Your task to perform on an android device: turn off javascript in the chrome app Image 0: 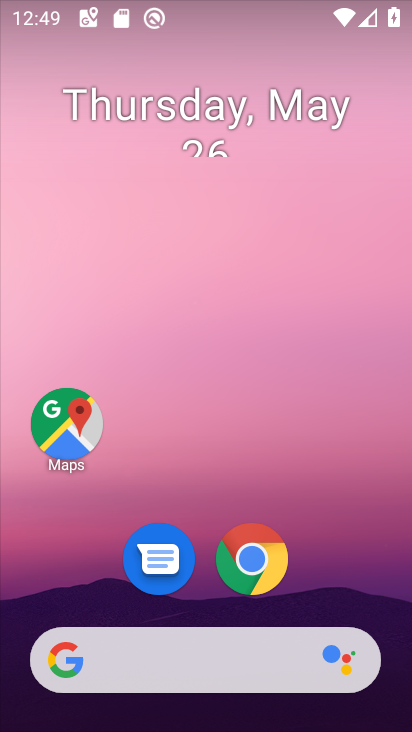
Step 0: press home button
Your task to perform on an android device: turn off javascript in the chrome app Image 1: 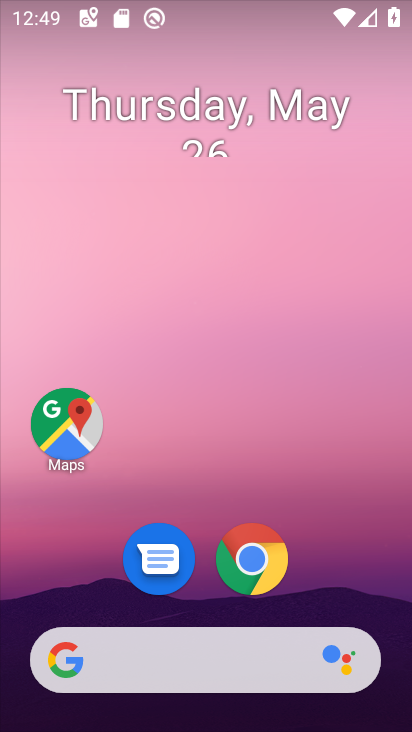
Step 1: click (242, 562)
Your task to perform on an android device: turn off javascript in the chrome app Image 2: 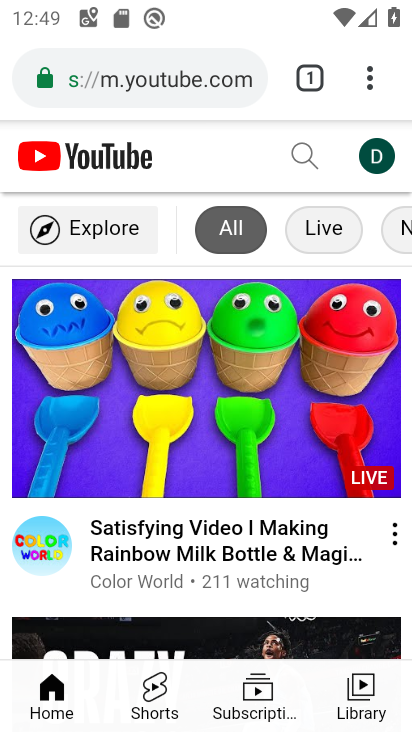
Step 2: drag from (367, 71) to (157, 615)
Your task to perform on an android device: turn off javascript in the chrome app Image 3: 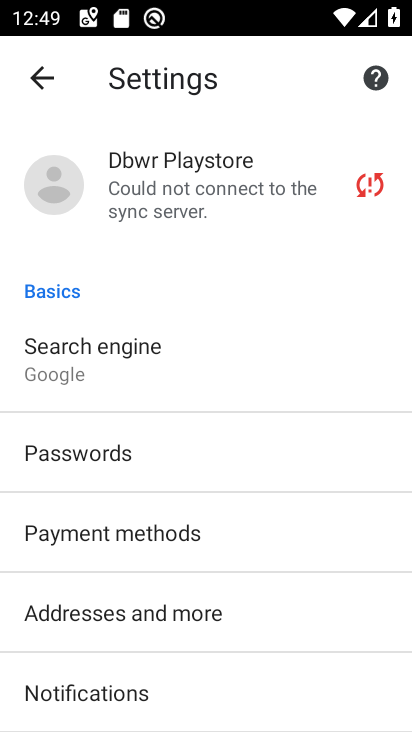
Step 3: drag from (251, 688) to (260, 53)
Your task to perform on an android device: turn off javascript in the chrome app Image 4: 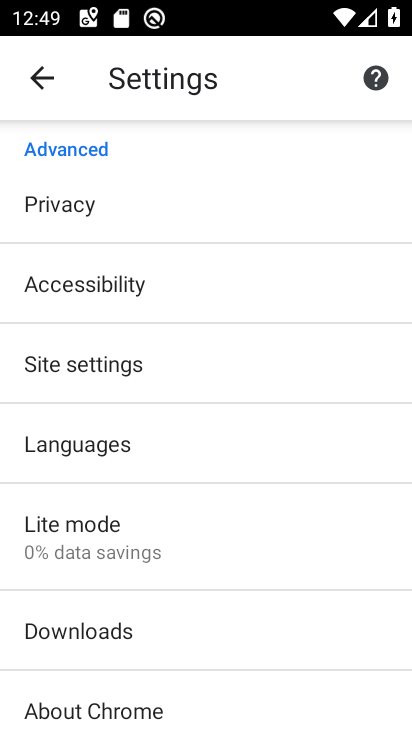
Step 4: click (65, 361)
Your task to perform on an android device: turn off javascript in the chrome app Image 5: 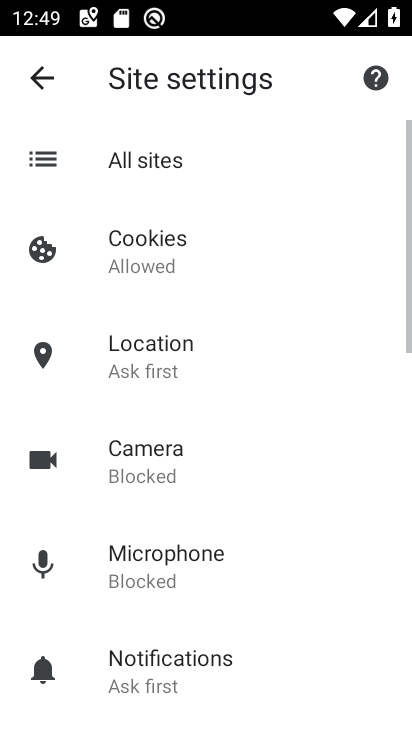
Step 5: drag from (326, 644) to (319, 120)
Your task to perform on an android device: turn off javascript in the chrome app Image 6: 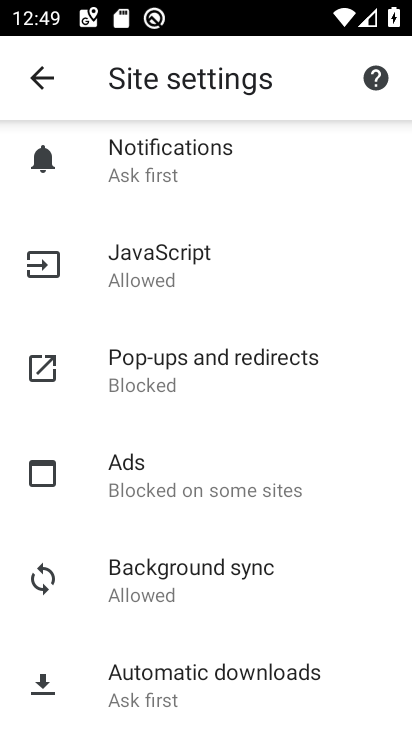
Step 6: click (133, 270)
Your task to perform on an android device: turn off javascript in the chrome app Image 7: 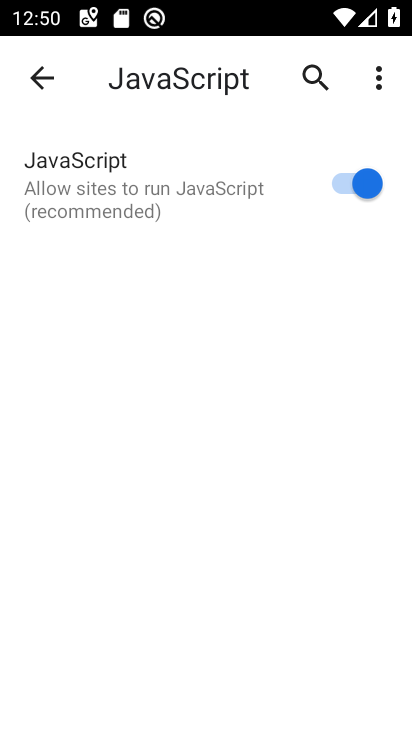
Step 7: click (360, 182)
Your task to perform on an android device: turn off javascript in the chrome app Image 8: 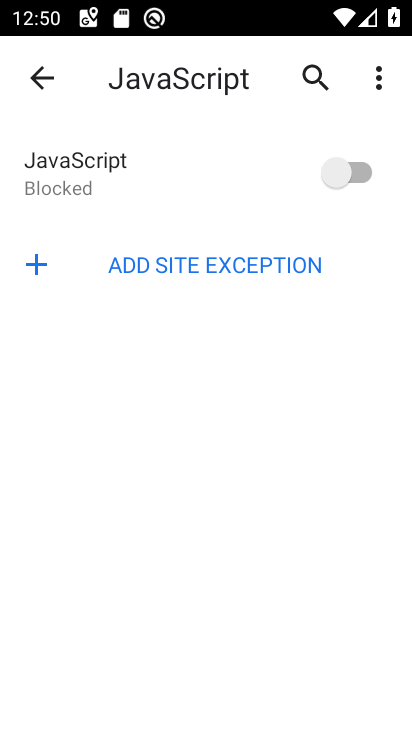
Step 8: task complete